Your task to perform on an android device: delete the emails in spam in the gmail app Image 0: 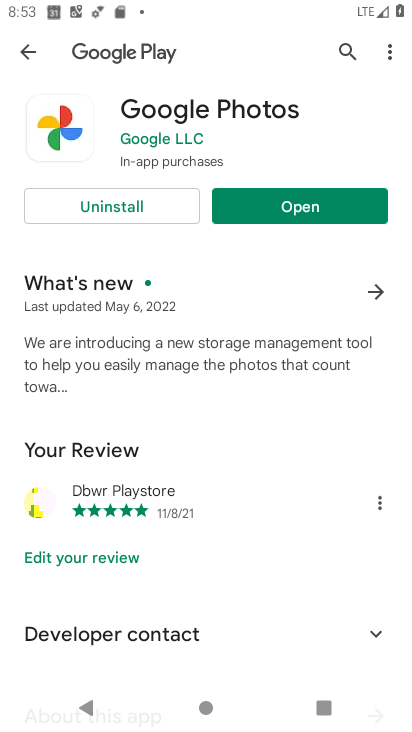
Step 0: press home button
Your task to perform on an android device: delete the emails in spam in the gmail app Image 1: 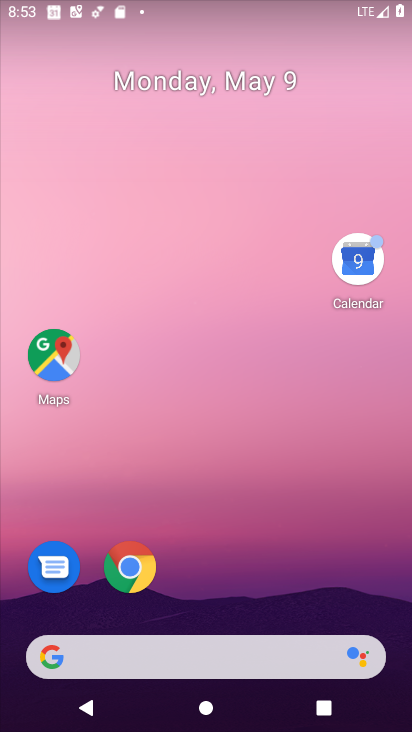
Step 1: drag from (223, 581) to (261, 85)
Your task to perform on an android device: delete the emails in spam in the gmail app Image 2: 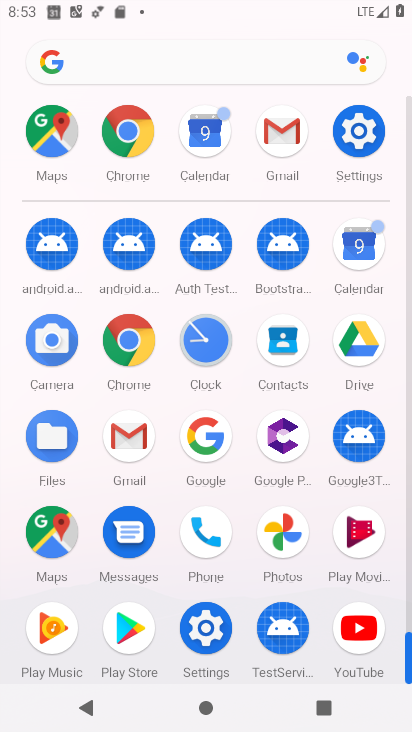
Step 2: click (117, 435)
Your task to perform on an android device: delete the emails in spam in the gmail app Image 3: 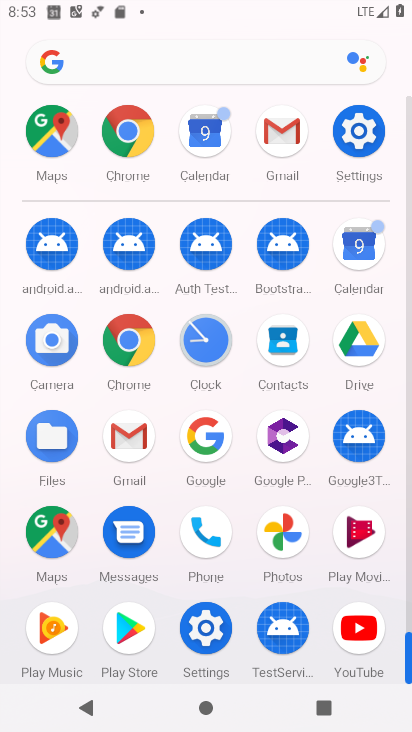
Step 3: click (117, 435)
Your task to perform on an android device: delete the emails in spam in the gmail app Image 4: 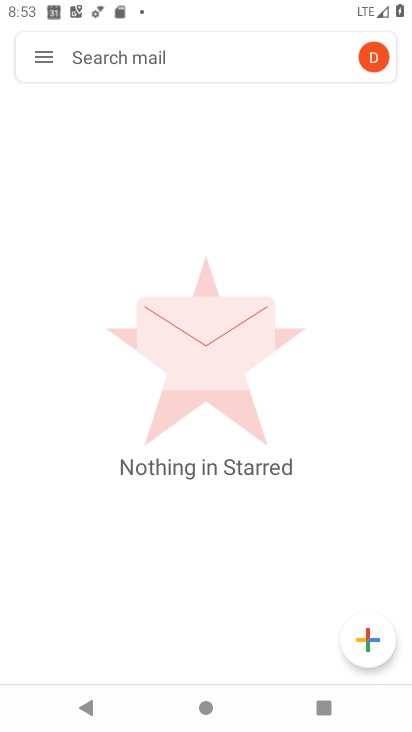
Step 4: click (34, 73)
Your task to perform on an android device: delete the emails in spam in the gmail app Image 5: 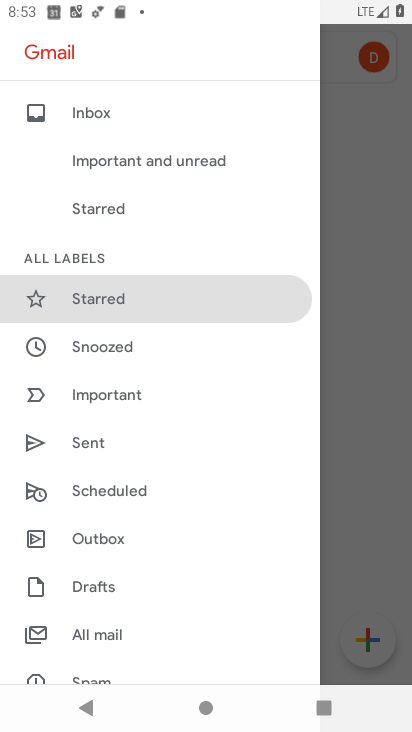
Step 5: drag from (105, 623) to (181, 176)
Your task to perform on an android device: delete the emails in spam in the gmail app Image 6: 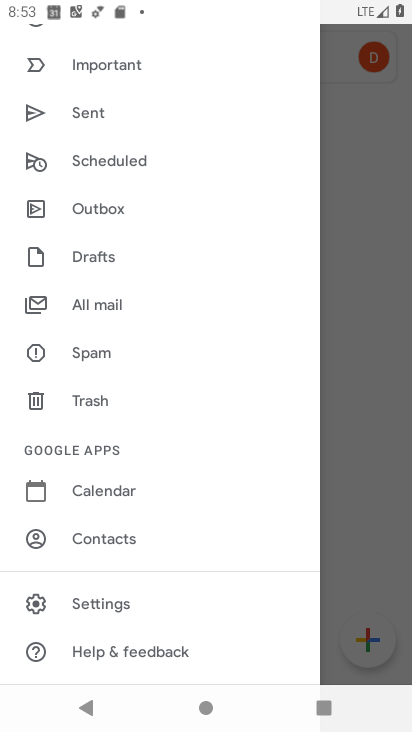
Step 6: click (98, 346)
Your task to perform on an android device: delete the emails in spam in the gmail app Image 7: 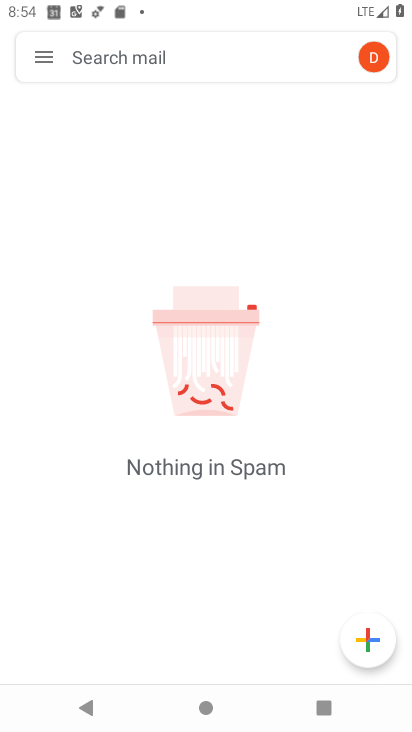
Step 7: task complete